Your task to perform on an android device: toggle javascript in the chrome app Image 0: 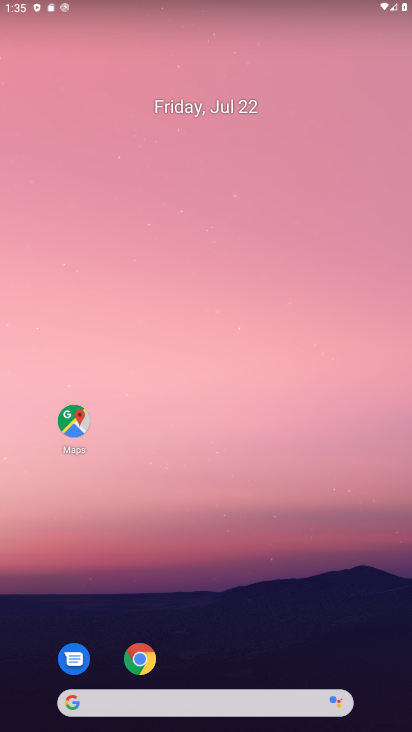
Step 0: click (150, 666)
Your task to perform on an android device: toggle javascript in the chrome app Image 1: 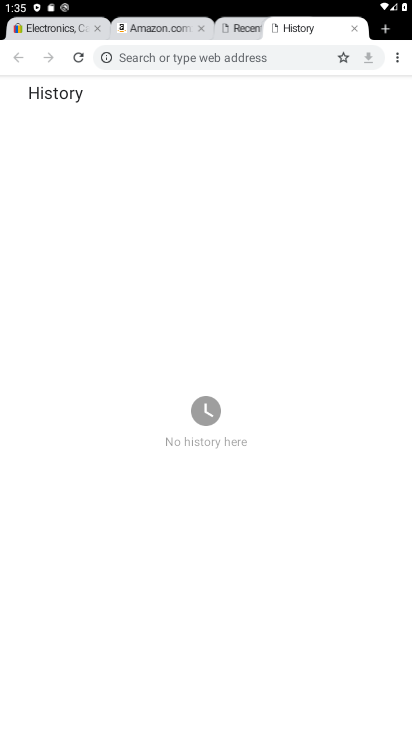
Step 1: task complete